Your task to perform on an android device: turn on bluetooth scan Image 0: 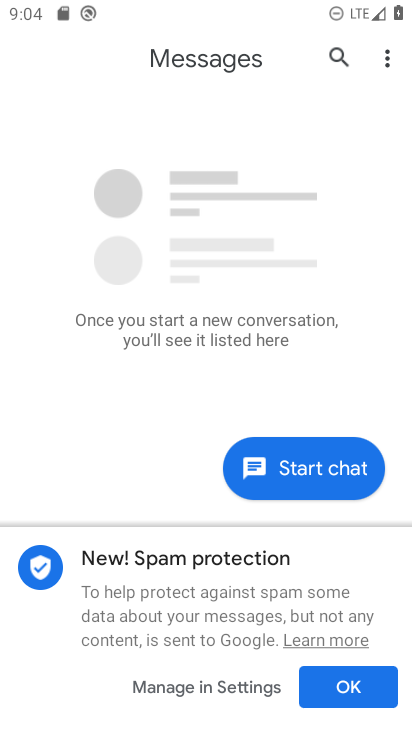
Step 0: press home button
Your task to perform on an android device: turn on bluetooth scan Image 1: 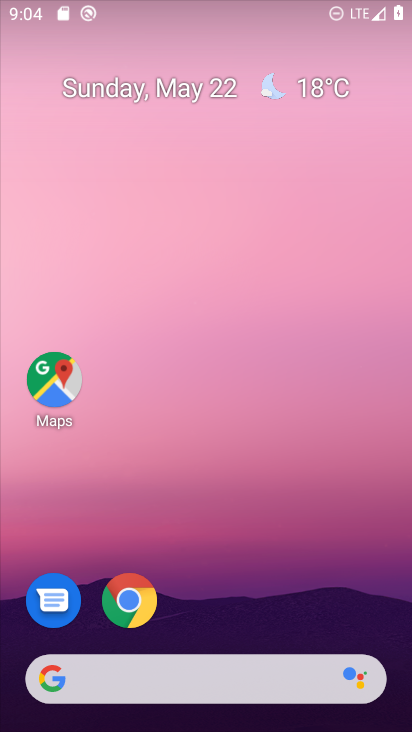
Step 1: drag from (396, 645) to (239, 97)
Your task to perform on an android device: turn on bluetooth scan Image 2: 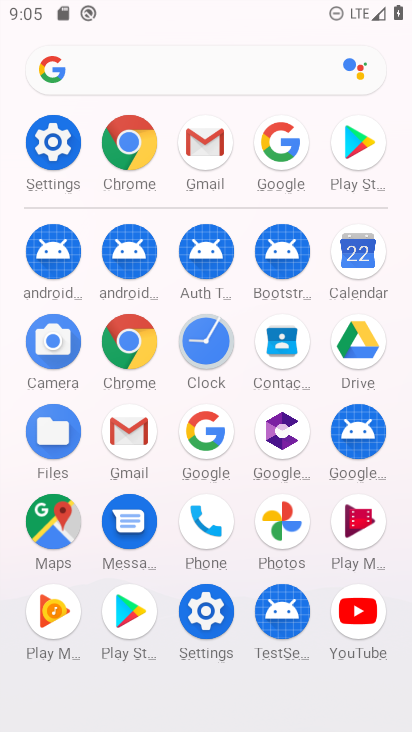
Step 2: click (205, 620)
Your task to perform on an android device: turn on bluetooth scan Image 3: 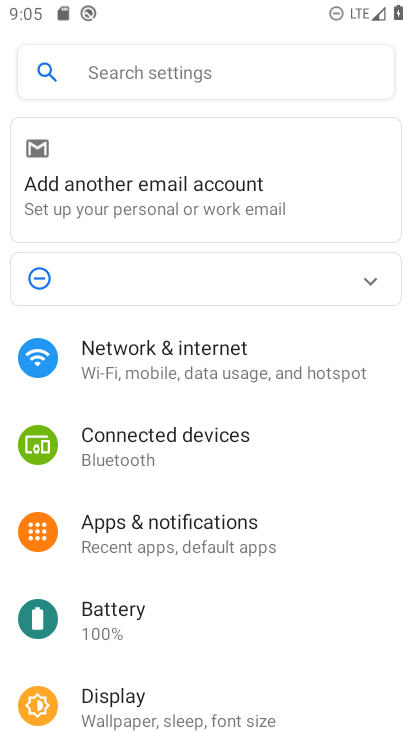
Step 3: drag from (205, 677) to (199, 372)
Your task to perform on an android device: turn on bluetooth scan Image 4: 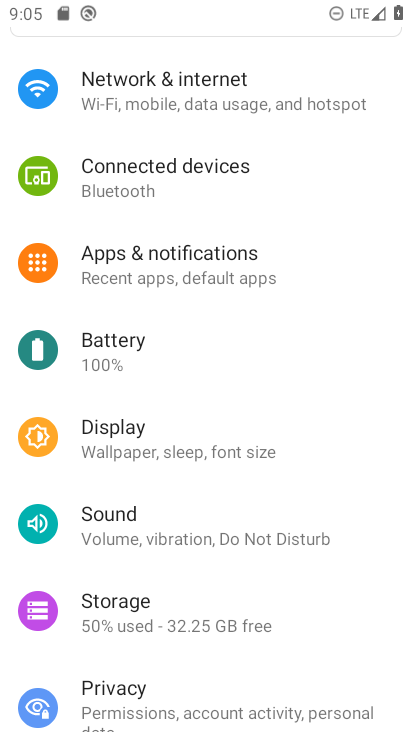
Step 4: drag from (161, 703) to (197, 216)
Your task to perform on an android device: turn on bluetooth scan Image 5: 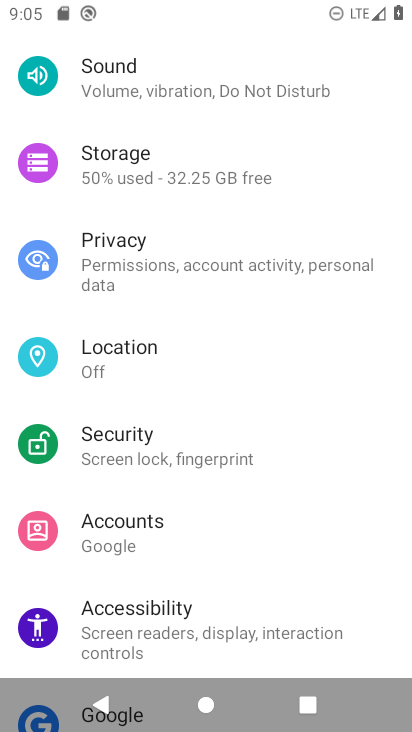
Step 5: click (164, 357)
Your task to perform on an android device: turn on bluetooth scan Image 6: 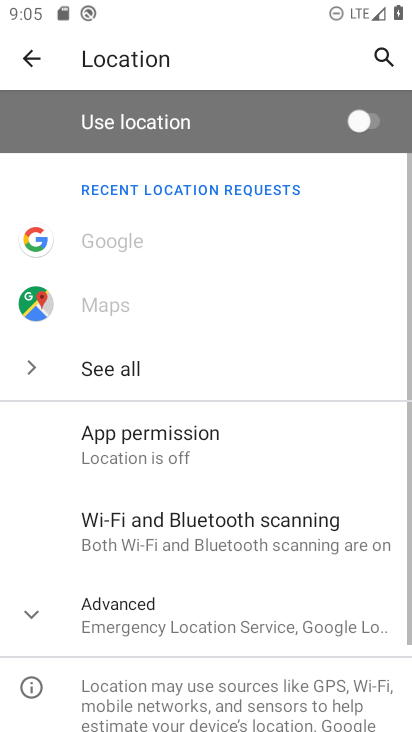
Step 6: click (266, 548)
Your task to perform on an android device: turn on bluetooth scan Image 7: 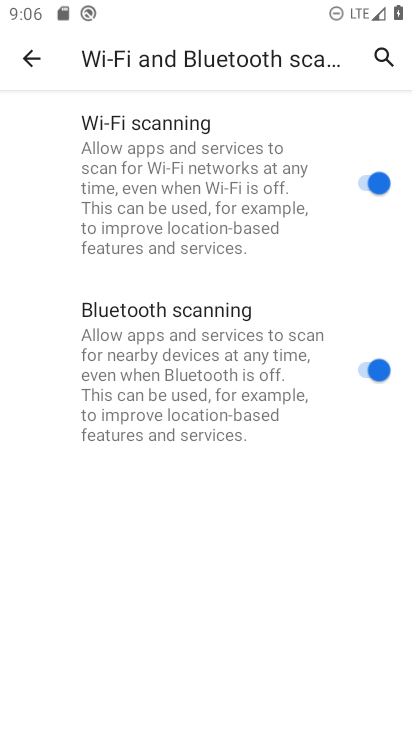
Step 7: task complete